Your task to perform on an android device: find snoozed emails in the gmail app Image 0: 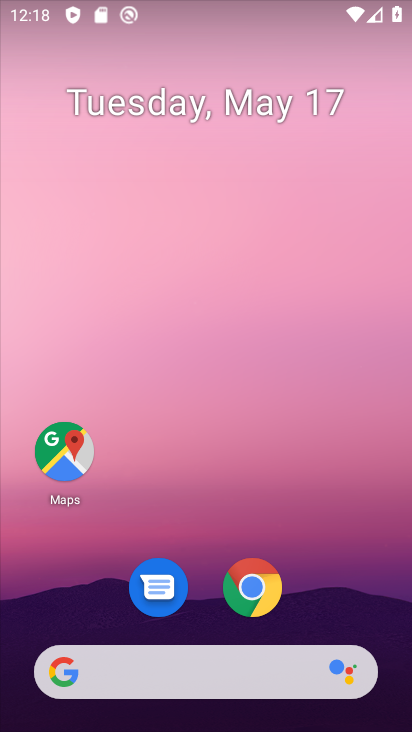
Step 0: drag from (221, 646) to (242, 10)
Your task to perform on an android device: find snoozed emails in the gmail app Image 1: 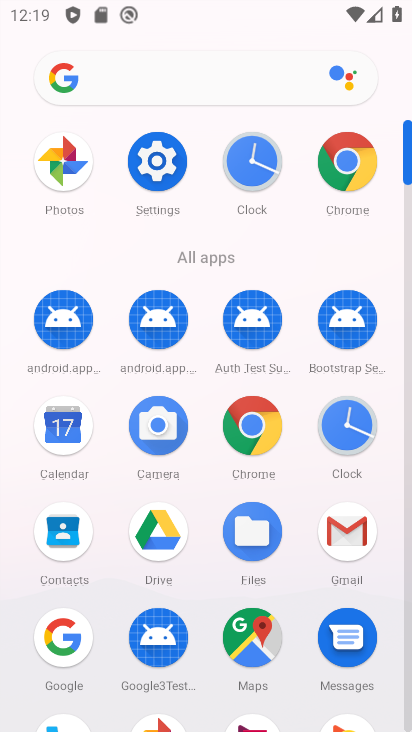
Step 1: click (339, 516)
Your task to perform on an android device: find snoozed emails in the gmail app Image 2: 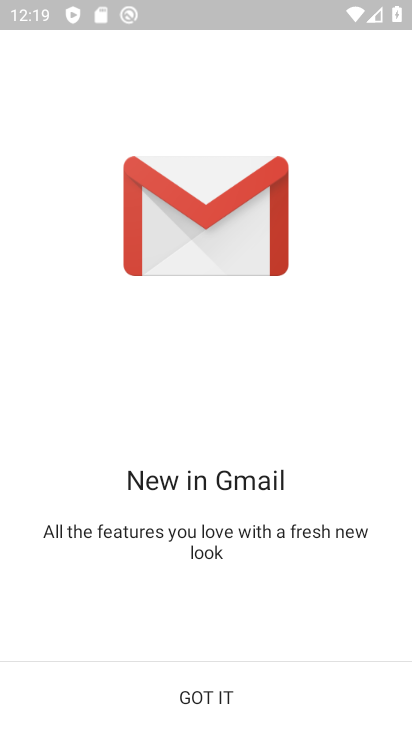
Step 2: click (145, 689)
Your task to perform on an android device: find snoozed emails in the gmail app Image 3: 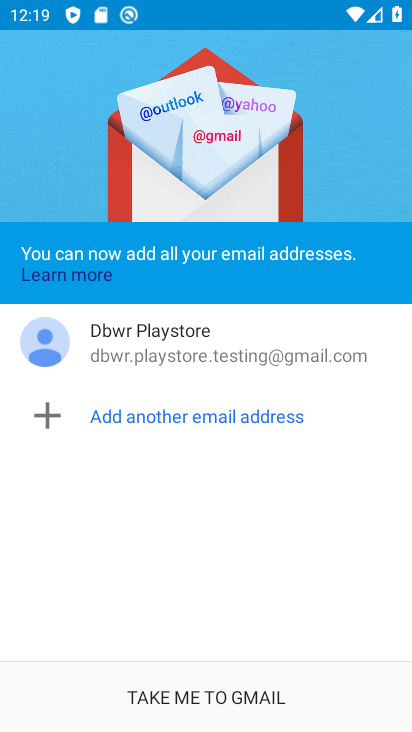
Step 3: click (228, 714)
Your task to perform on an android device: find snoozed emails in the gmail app Image 4: 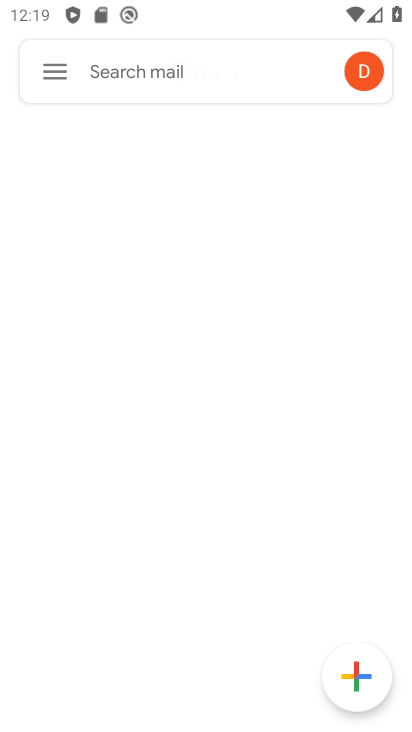
Step 4: click (39, 65)
Your task to perform on an android device: find snoozed emails in the gmail app Image 5: 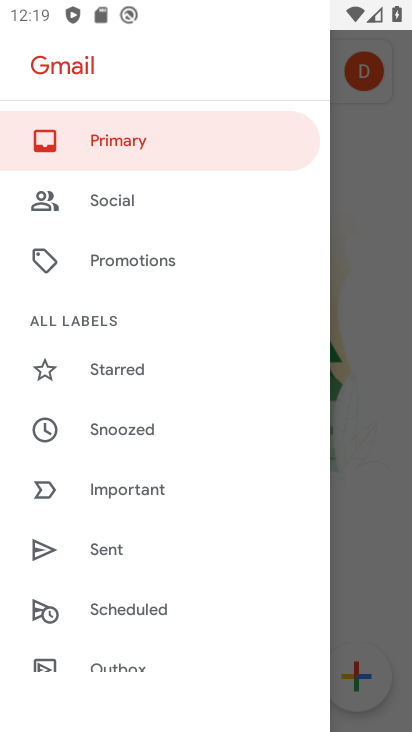
Step 5: click (102, 429)
Your task to perform on an android device: find snoozed emails in the gmail app Image 6: 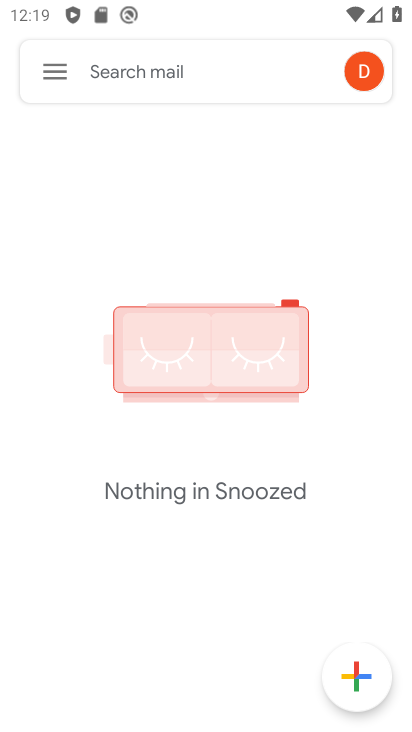
Step 6: task complete